Your task to perform on an android device: change text size in settings app Image 0: 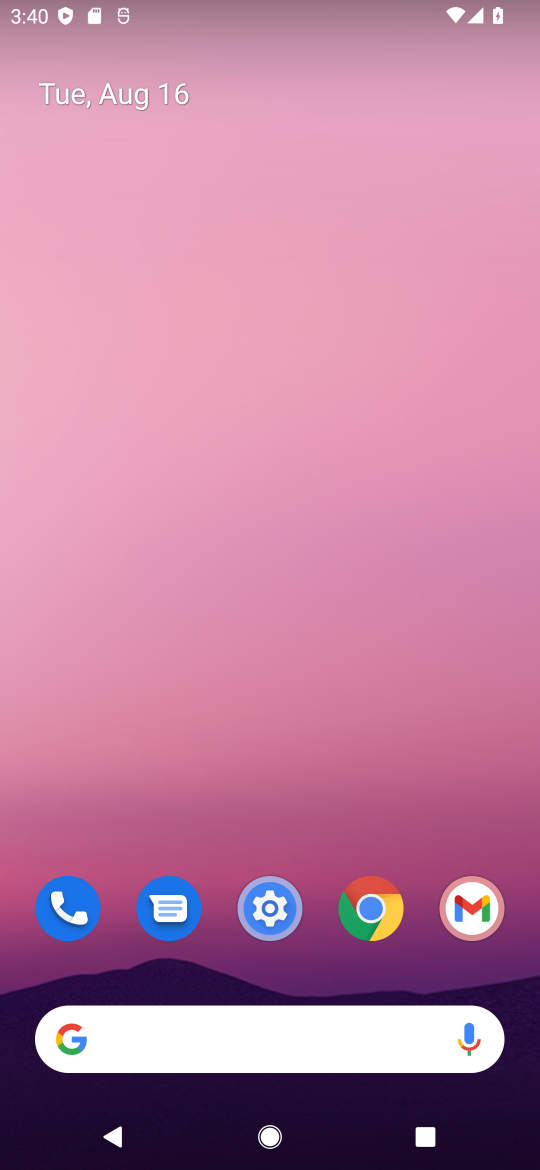
Step 0: click (268, 905)
Your task to perform on an android device: change text size in settings app Image 1: 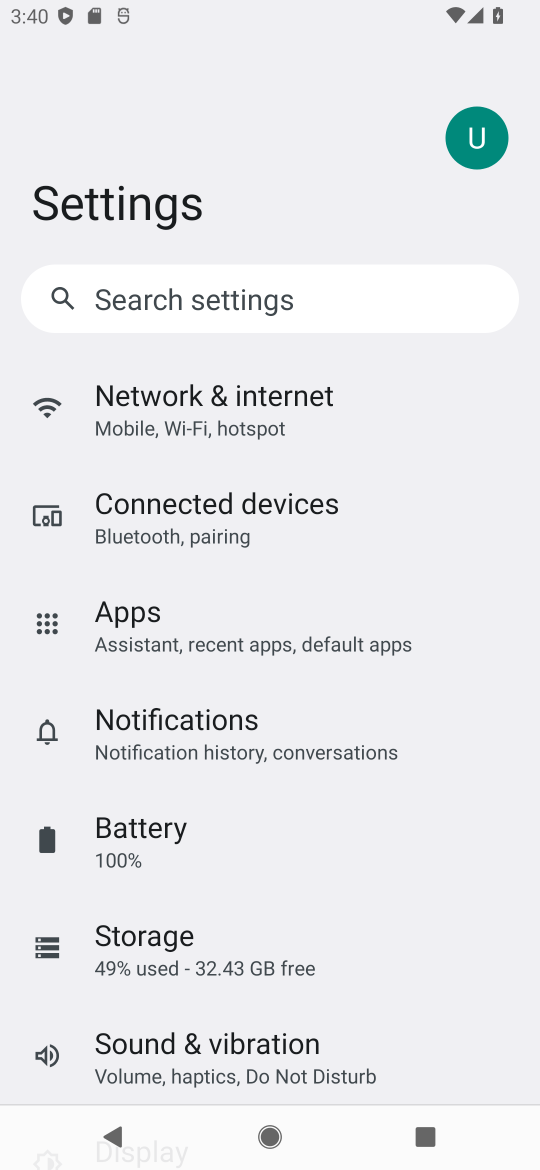
Step 1: drag from (241, 912) to (313, 359)
Your task to perform on an android device: change text size in settings app Image 2: 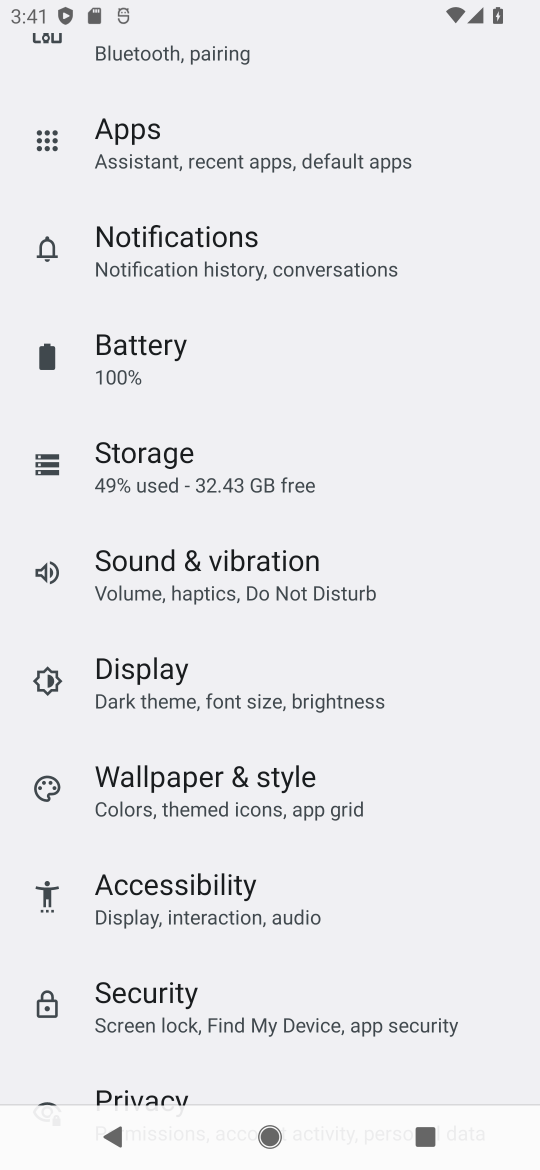
Step 2: click (213, 666)
Your task to perform on an android device: change text size in settings app Image 3: 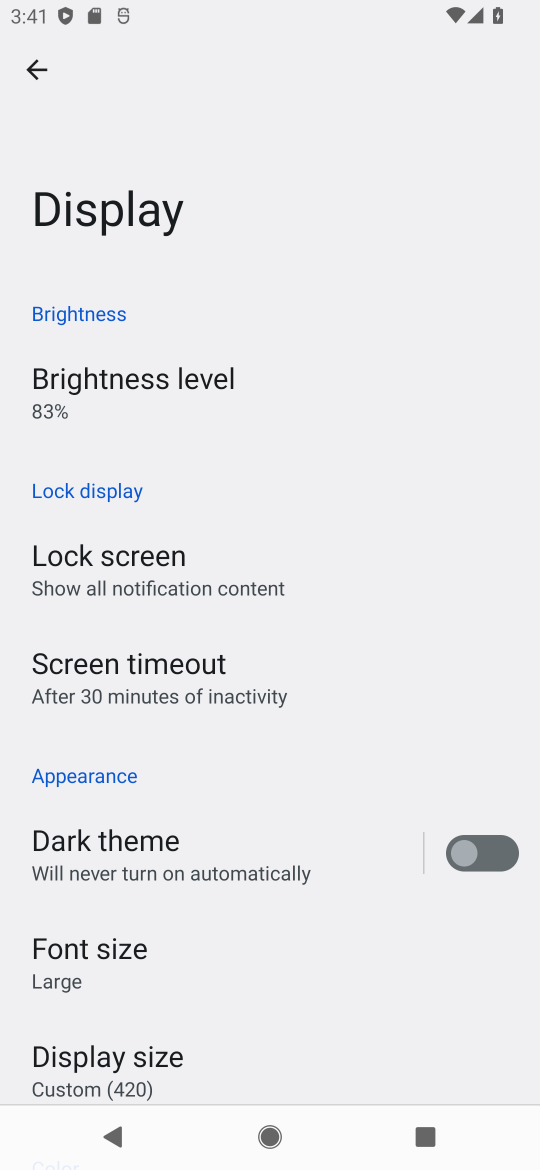
Step 3: drag from (224, 1015) to (252, 610)
Your task to perform on an android device: change text size in settings app Image 4: 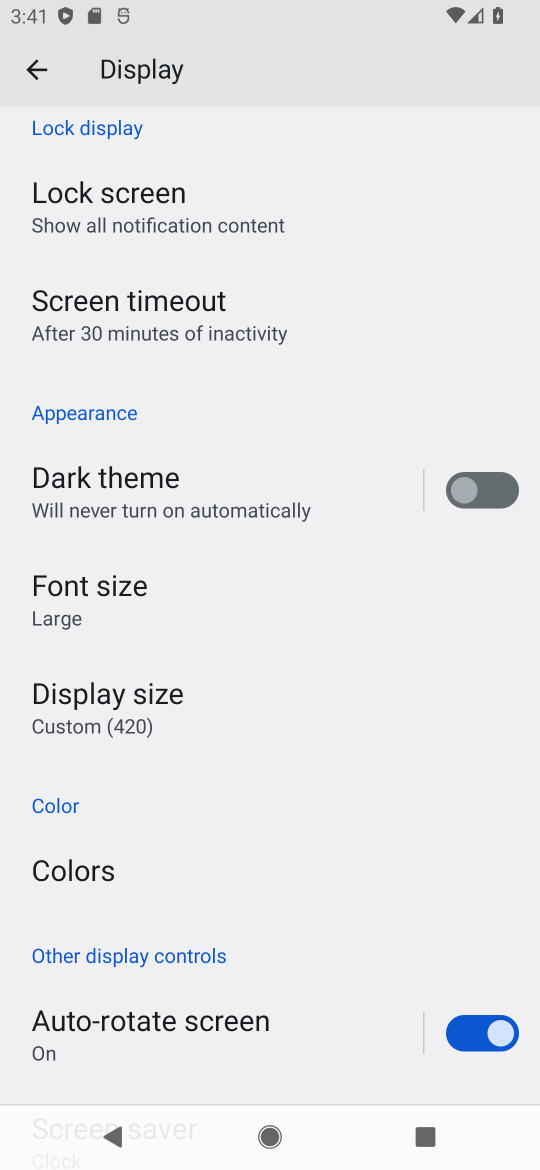
Step 4: click (143, 597)
Your task to perform on an android device: change text size in settings app Image 5: 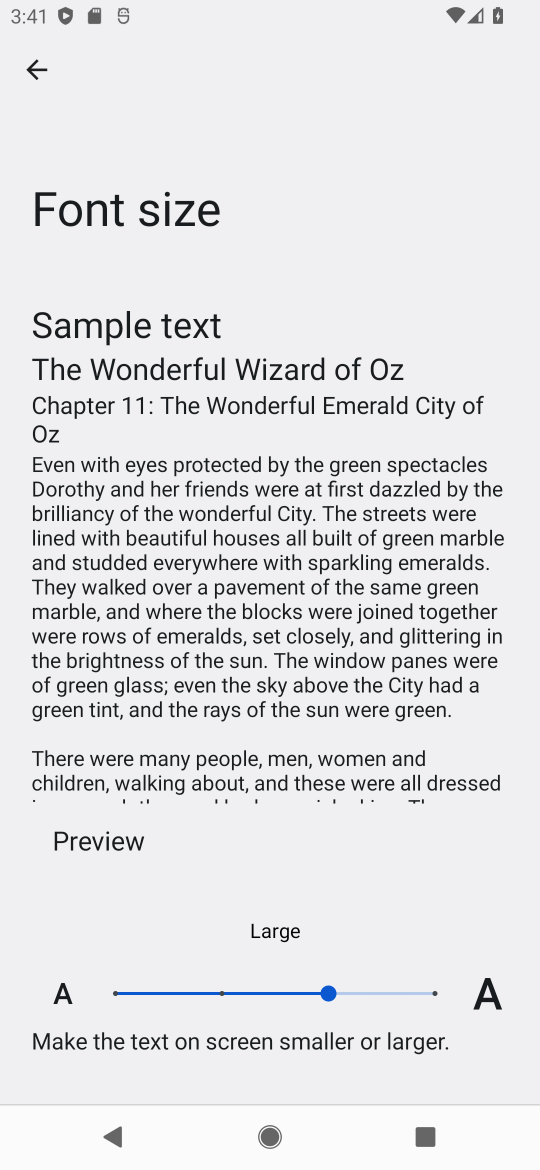
Step 5: click (225, 993)
Your task to perform on an android device: change text size in settings app Image 6: 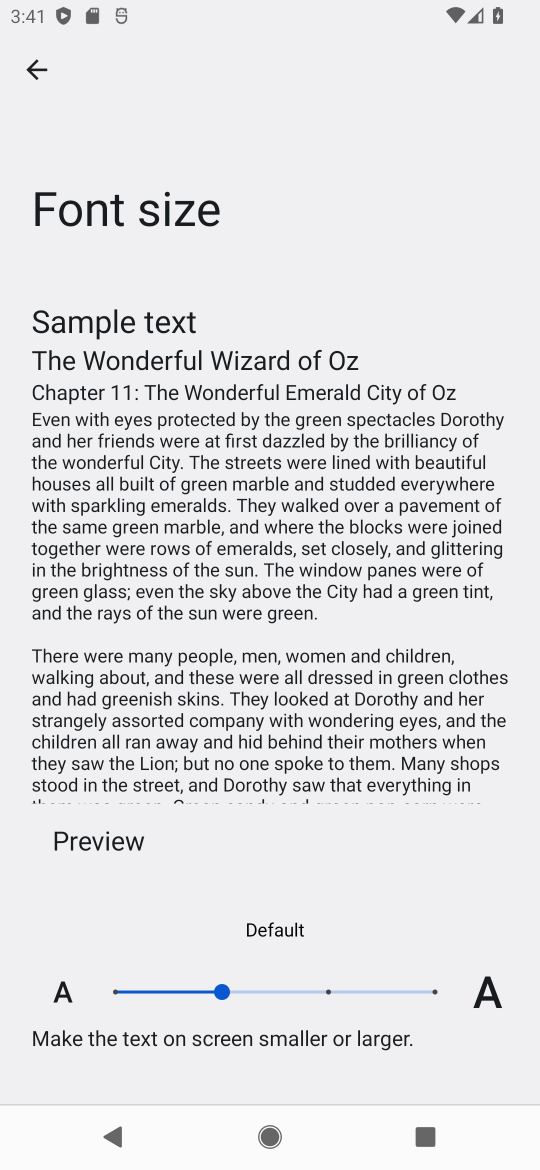
Step 6: task complete